Your task to perform on an android device: Open Android settings Image 0: 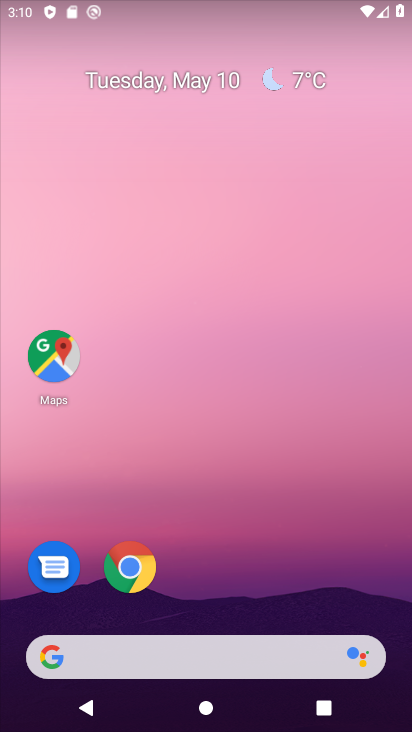
Step 0: drag from (259, 525) to (237, 50)
Your task to perform on an android device: Open Android settings Image 1: 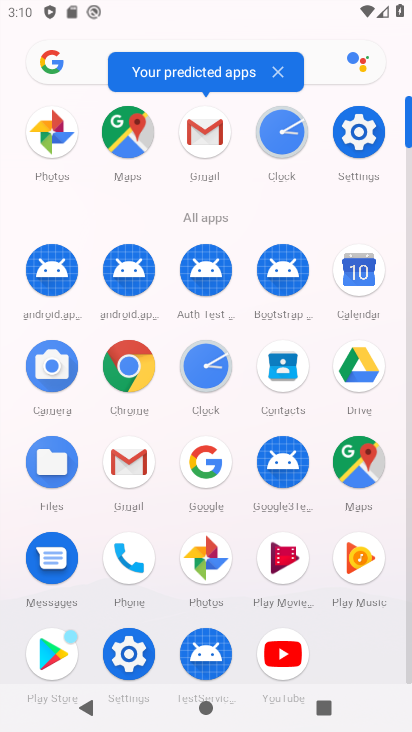
Step 1: click (360, 132)
Your task to perform on an android device: Open Android settings Image 2: 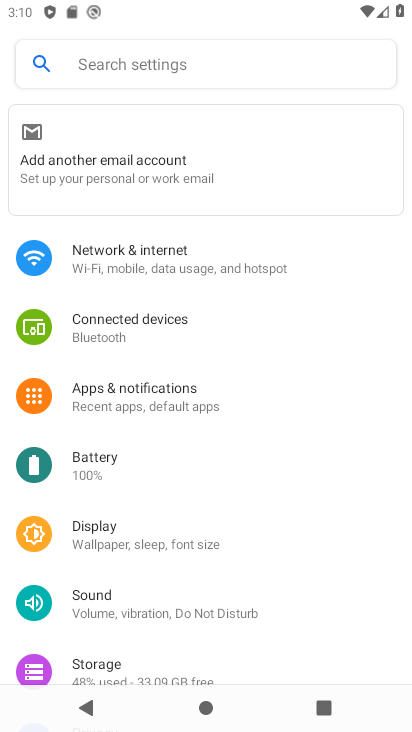
Step 2: task complete